Your task to perform on an android device: manage bookmarks in the chrome app Image 0: 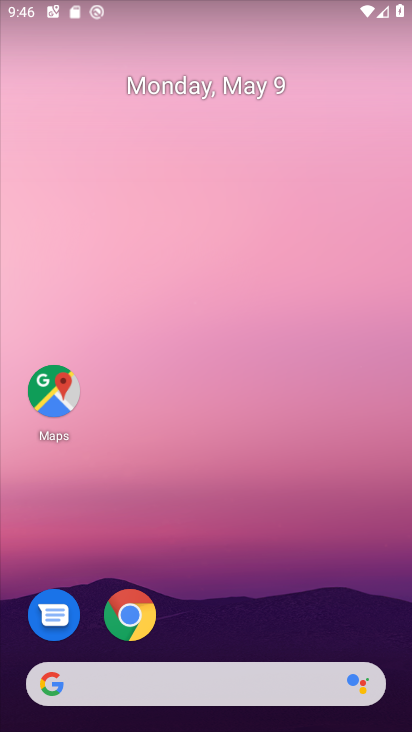
Step 0: drag from (291, 701) to (220, 252)
Your task to perform on an android device: manage bookmarks in the chrome app Image 1: 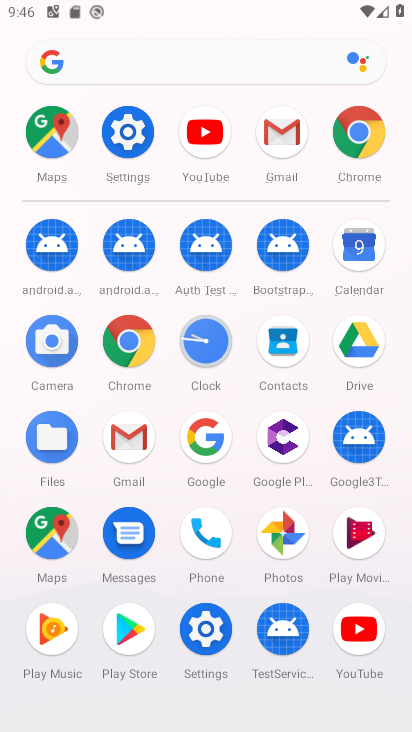
Step 1: click (330, 139)
Your task to perform on an android device: manage bookmarks in the chrome app Image 2: 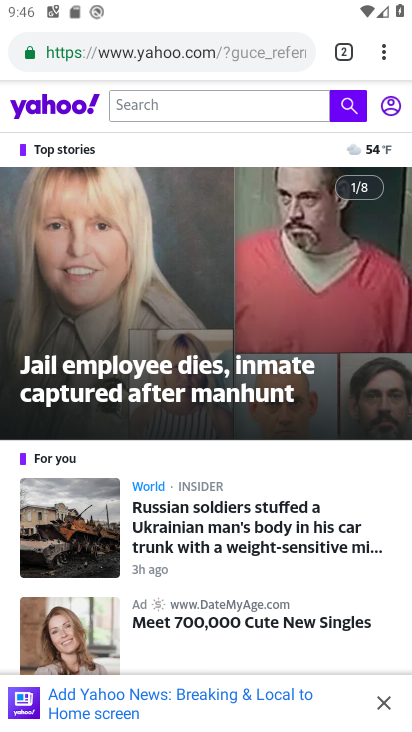
Step 2: click (379, 53)
Your task to perform on an android device: manage bookmarks in the chrome app Image 3: 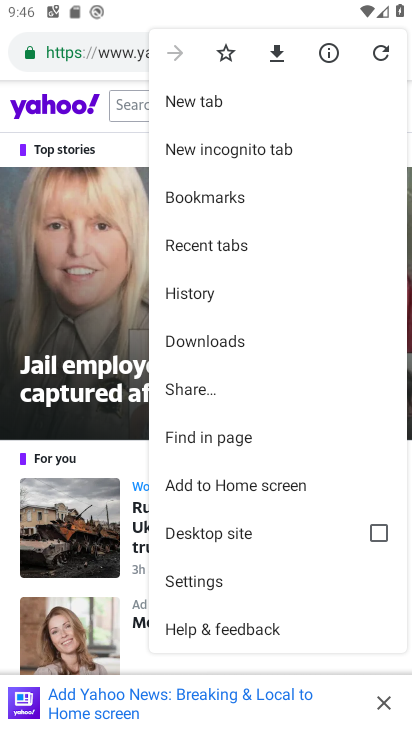
Step 3: click (242, 196)
Your task to perform on an android device: manage bookmarks in the chrome app Image 4: 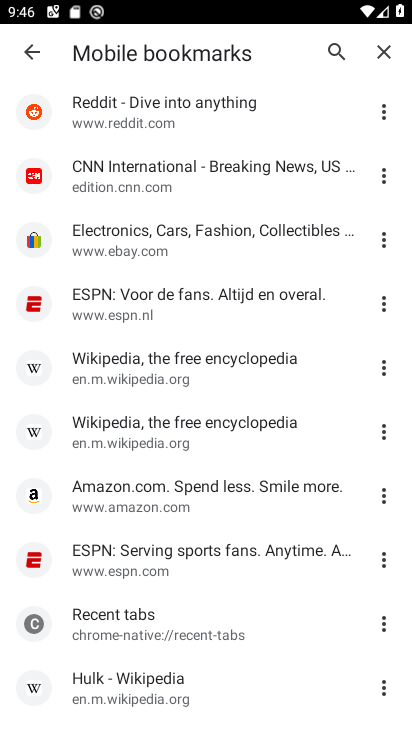
Step 4: task complete